Your task to perform on an android device: Turn on the flashlight Image 0: 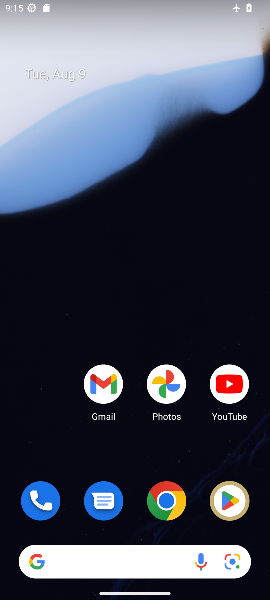
Step 0: drag from (135, 510) to (132, 232)
Your task to perform on an android device: Turn on the flashlight Image 1: 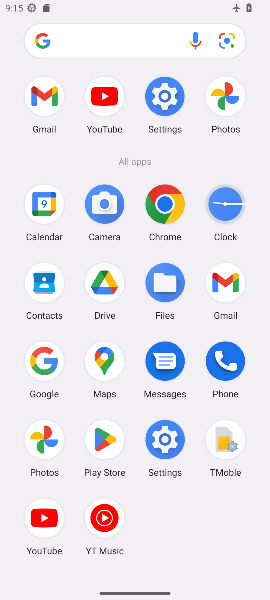
Step 1: task complete